Your task to perform on an android device: Show me popular games on the Play Store Image 0: 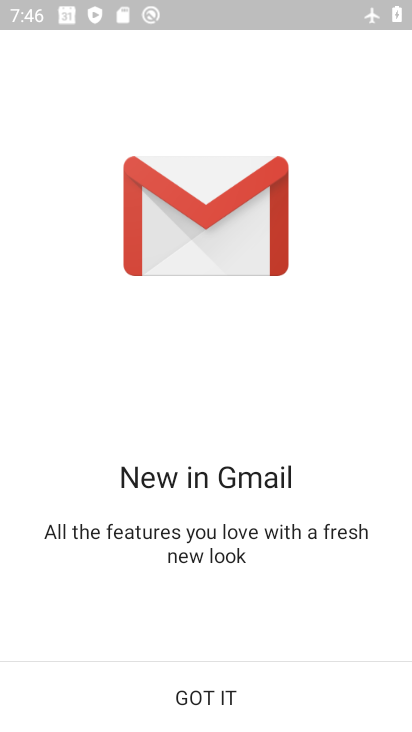
Step 0: press back button
Your task to perform on an android device: Show me popular games on the Play Store Image 1: 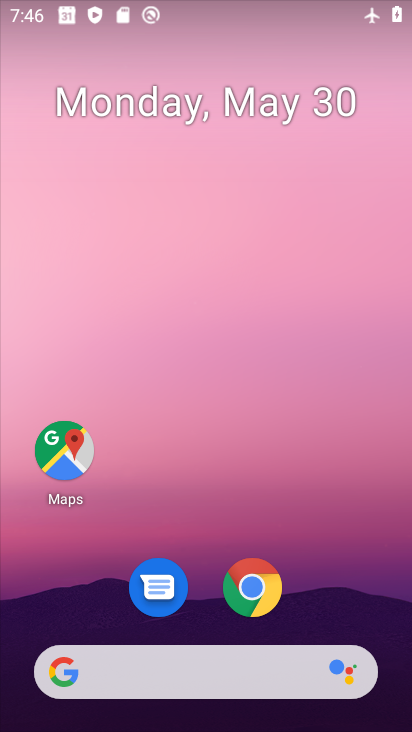
Step 1: drag from (346, 610) to (268, 36)
Your task to perform on an android device: Show me popular games on the Play Store Image 2: 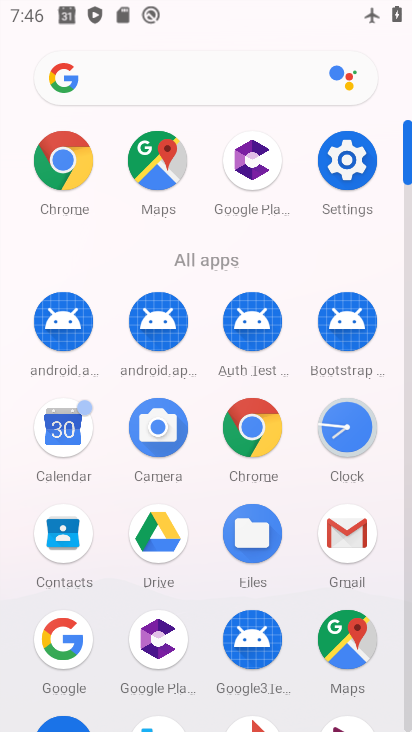
Step 2: drag from (11, 627) to (29, 248)
Your task to perform on an android device: Show me popular games on the Play Store Image 3: 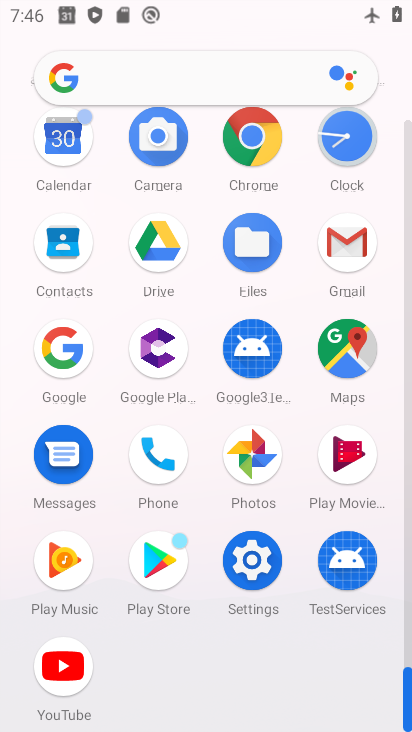
Step 3: click (155, 557)
Your task to perform on an android device: Show me popular games on the Play Store Image 4: 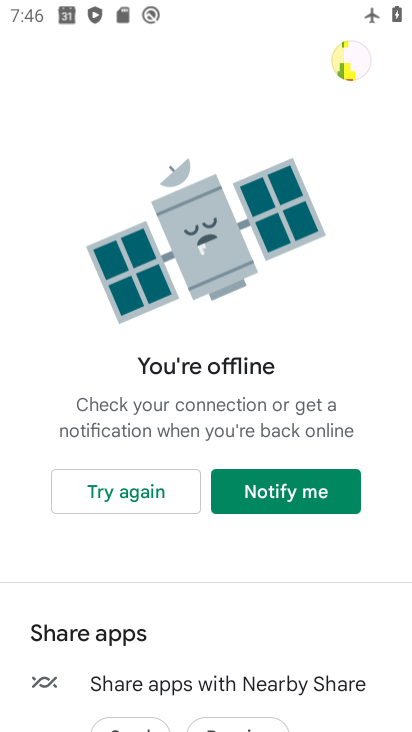
Step 4: click (134, 495)
Your task to perform on an android device: Show me popular games on the Play Store Image 5: 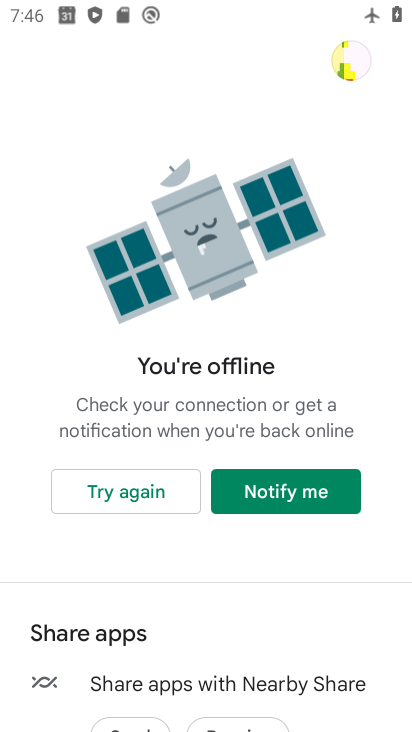
Step 5: task complete